Your task to perform on an android device: Empty the shopping cart on newegg.com. Add "usb-a" to the cart on newegg.com, then select checkout. Image 0: 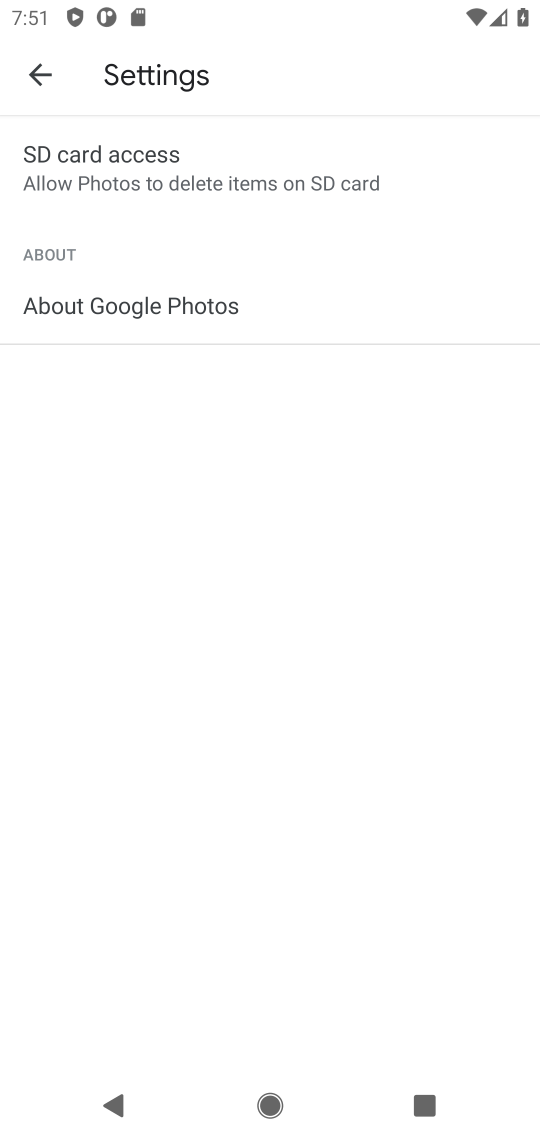
Step 0: press home button
Your task to perform on an android device: Empty the shopping cart on newegg.com. Add "usb-a" to the cart on newegg.com, then select checkout. Image 1: 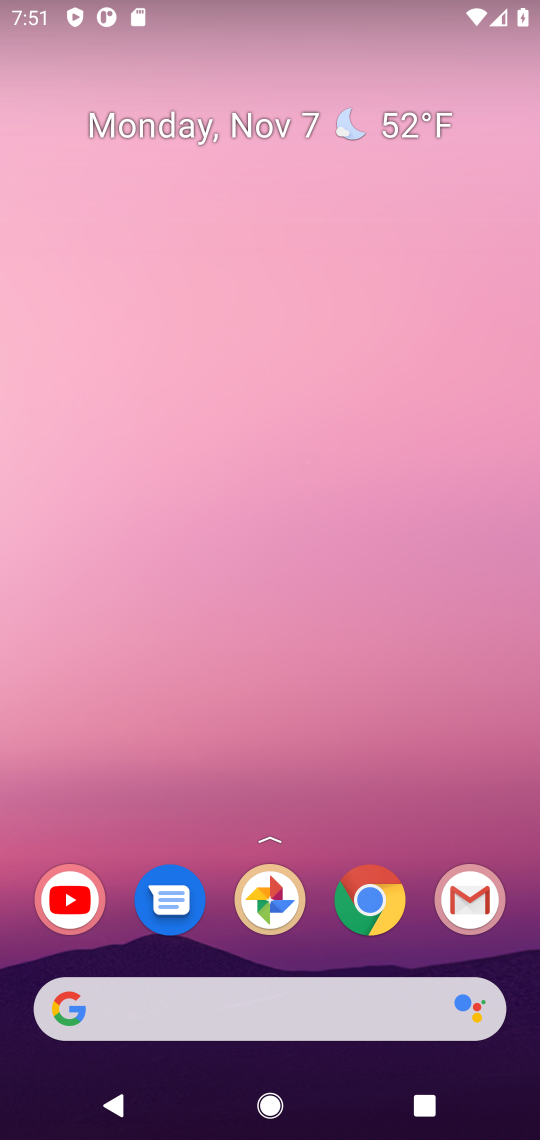
Step 1: click (266, 1021)
Your task to perform on an android device: Empty the shopping cart on newegg.com. Add "usb-a" to the cart on newegg.com, then select checkout. Image 2: 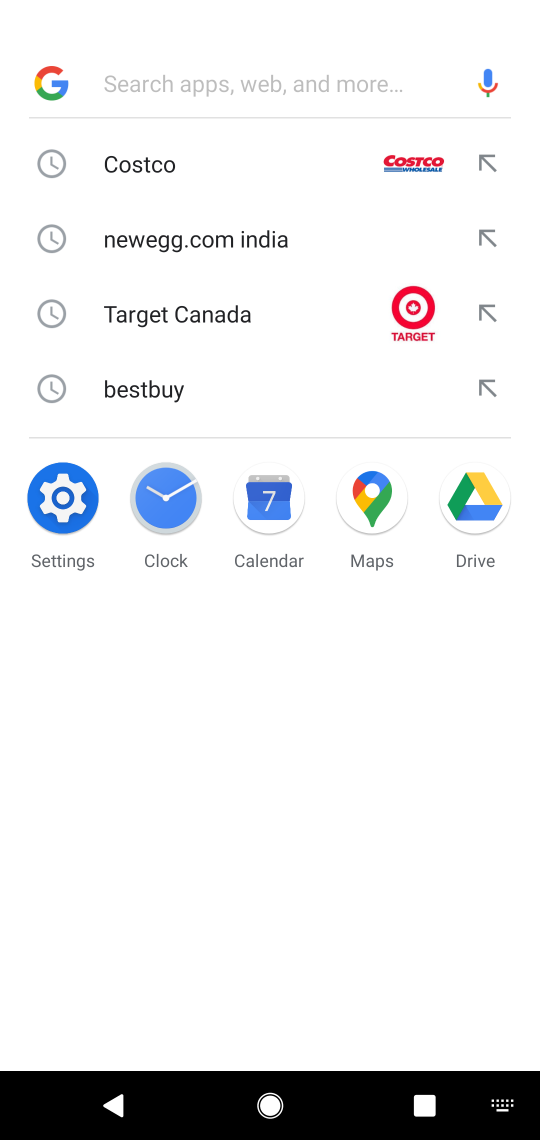
Step 2: click (205, 255)
Your task to perform on an android device: Empty the shopping cart on newegg.com. Add "usb-a" to the cart on newegg.com, then select checkout. Image 3: 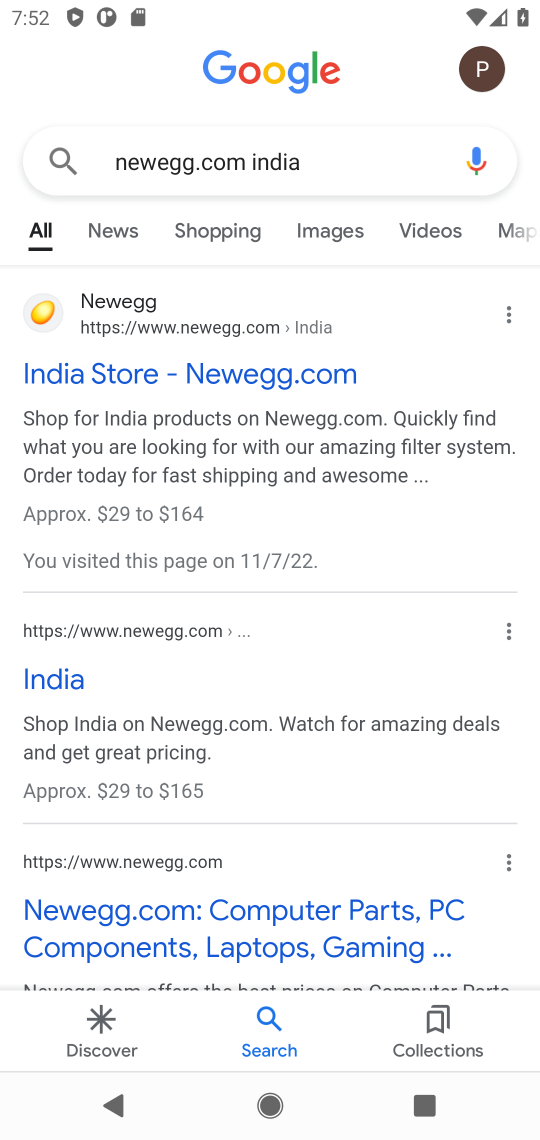
Step 3: click (32, 370)
Your task to perform on an android device: Empty the shopping cart on newegg.com. Add "usb-a" to the cart on newegg.com, then select checkout. Image 4: 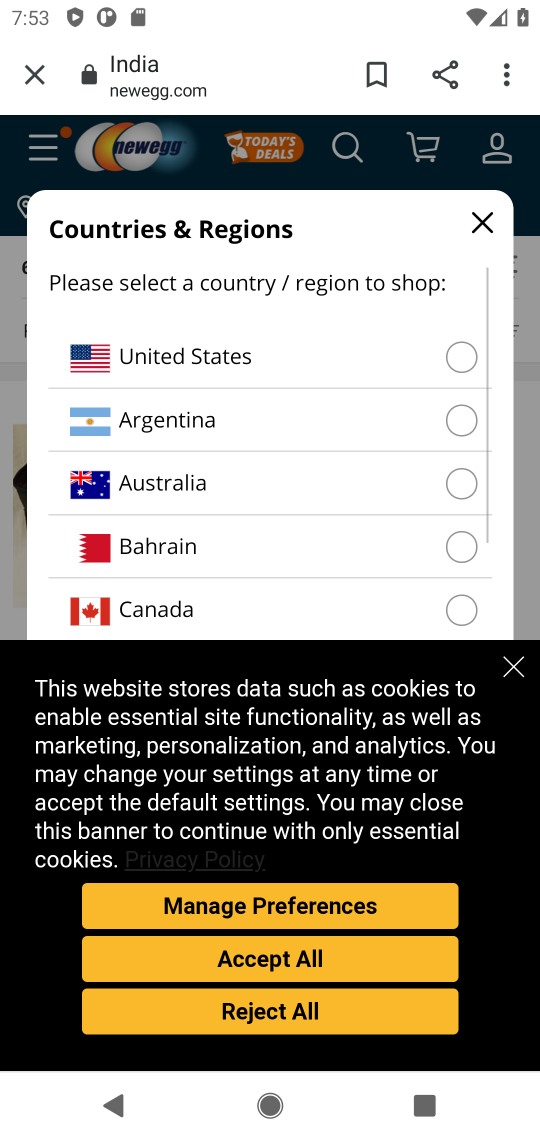
Step 4: task complete